Your task to perform on an android device: set default search engine in the chrome app Image 0: 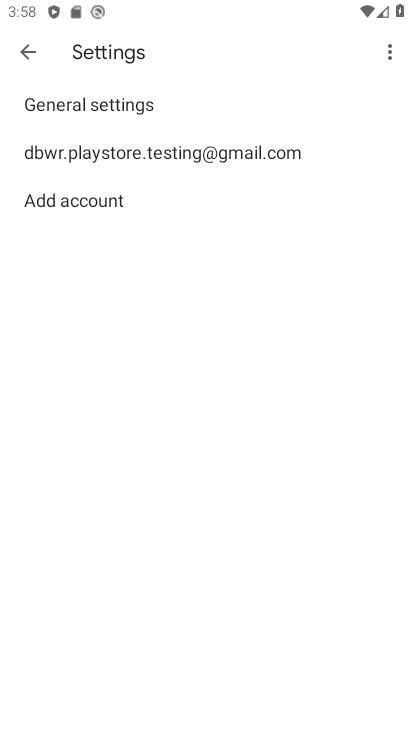
Step 0: press home button
Your task to perform on an android device: set default search engine in the chrome app Image 1: 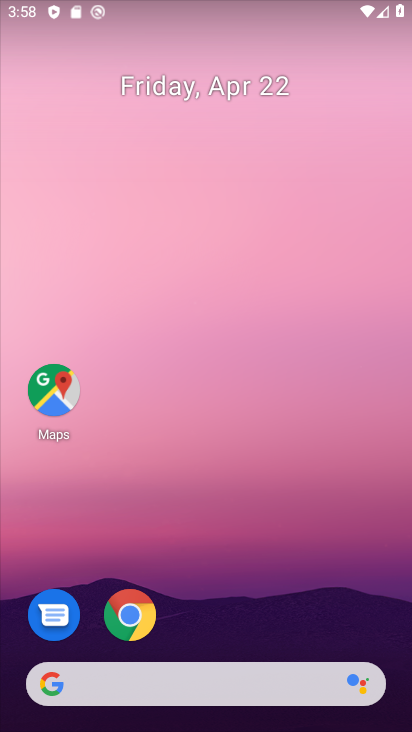
Step 1: click (134, 634)
Your task to perform on an android device: set default search engine in the chrome app Image 2: 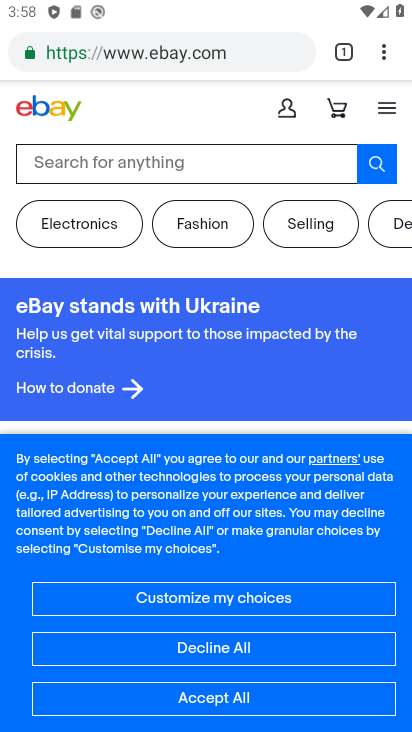
Step 2: drag from (387, 54) to (235, 624)
Your task to perform on an android device: set default search engine in the chrome app Image 3: 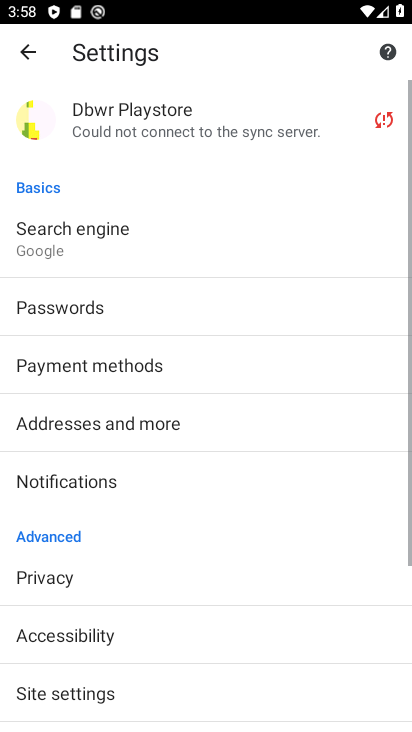
Step 3: drag from (167, 651) to (179, 545)
Your task to perform on an android device: set default search engine in the chrome app Image 4: 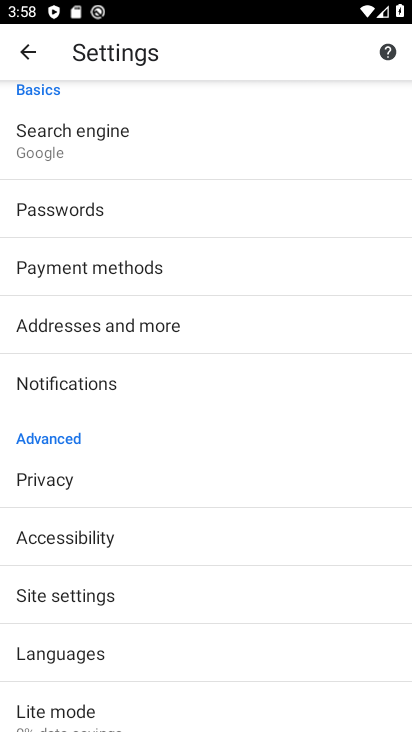
Step 4: click (205, 143)
Your task to perform on an android device: set default search engine in the chrome app Image 5: 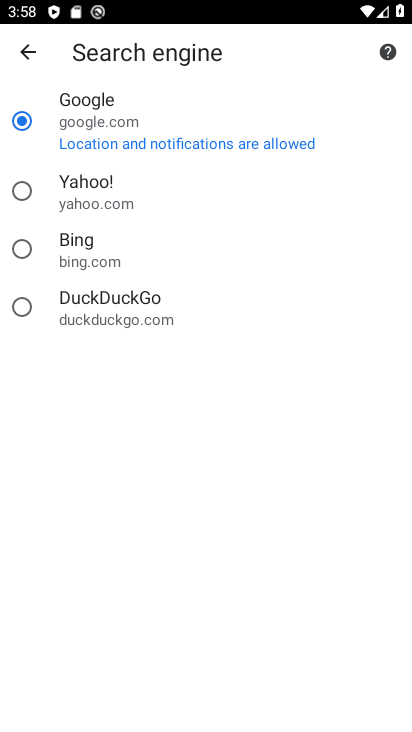
Step 5: click (136, 199)
Your task to perform on an android device: set default search engine in the chrome app Image 6: 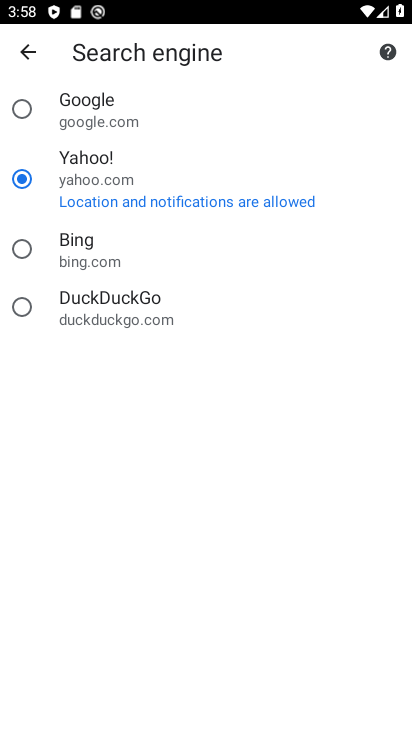
Step 6: task complete